Your task to perform on an android device: turn pop-ups on in chrome Image 0: 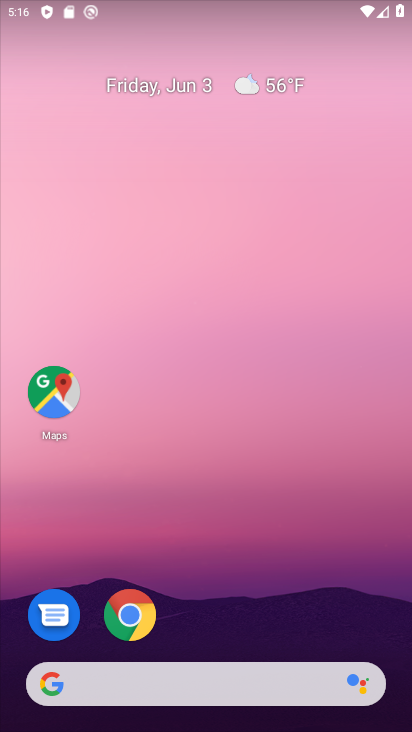
Step 0: click (129, 618)
Your task to perform on an android device: turn pop-ups on in chrome Image 1: 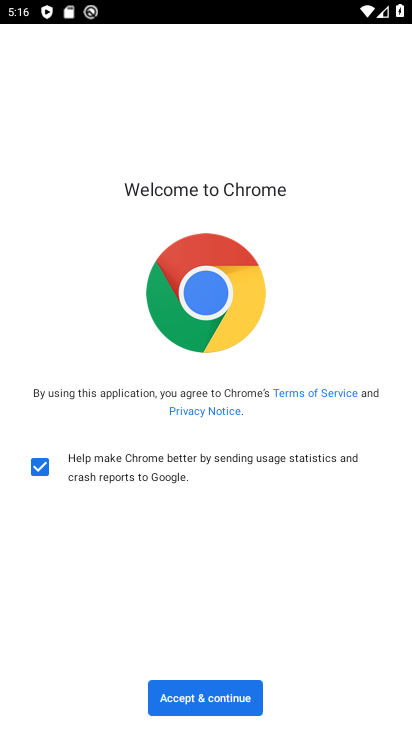
Step 1: click (196, 697)
Your task to perform on an android device: turn pop-ups on in chrome Image 2: 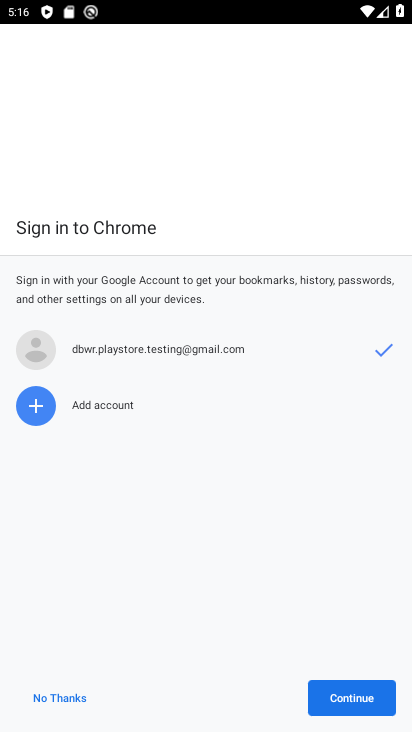
Step 2: click (350, 698)
Your task to perform on an android device: turn pop-ups on in chrome Image 3: 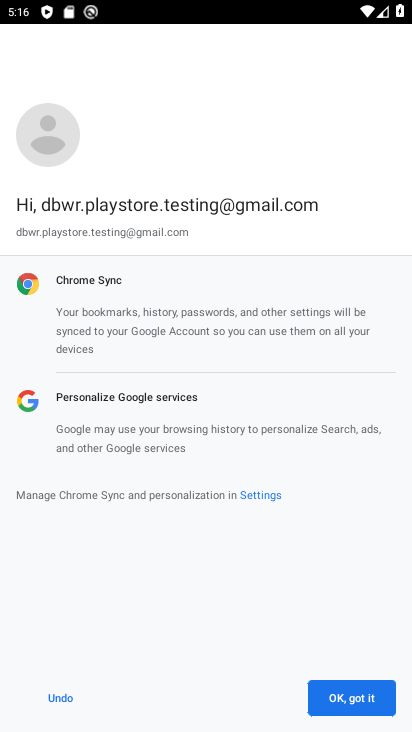
Step 3: click (350, 698)
Your task to perform on an android device: turn pop-ups on in chrome Image 4: 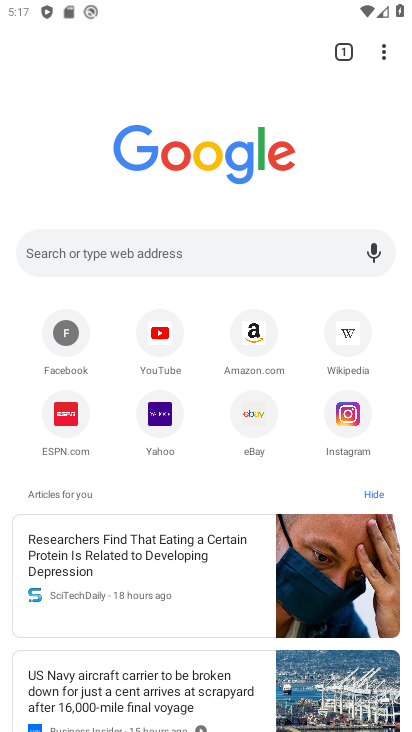
Step 4: click (385, 52)
Your task to perform on an android device: turn pop-ups on in chrome Image 5: 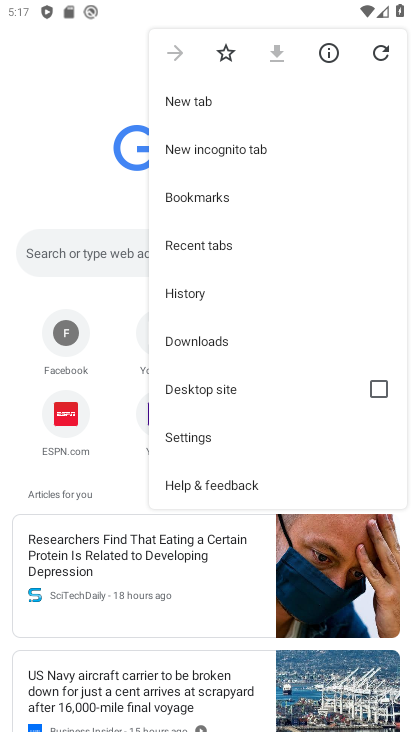
Step 5: click (208, 435)
Your task to perform on an android device: turn pop-ups on in chrome Image 6: 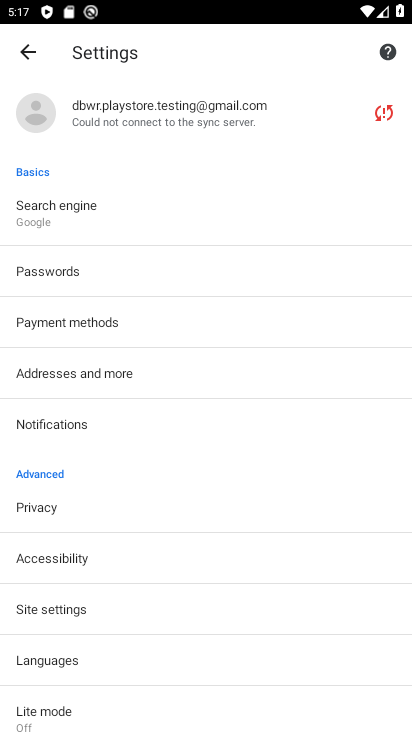
Step 6: click (59, 613)
Your task to perform on an android device: turn pop-ups on in chrome Image 7: 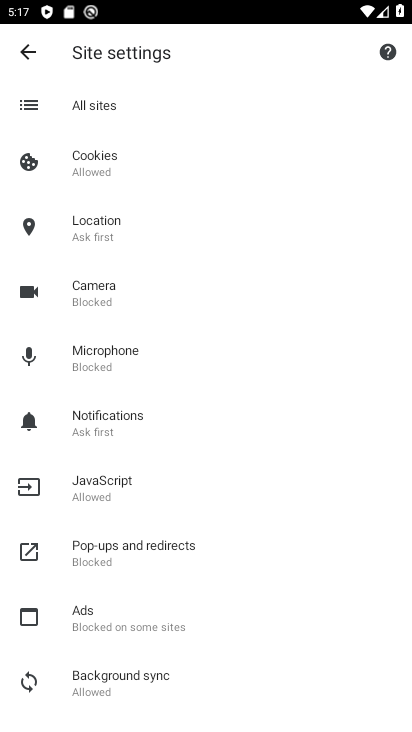
Step 7: click (132, 549)
Your task to perform on an android device: turn pop-ups on in chrome Image 8: 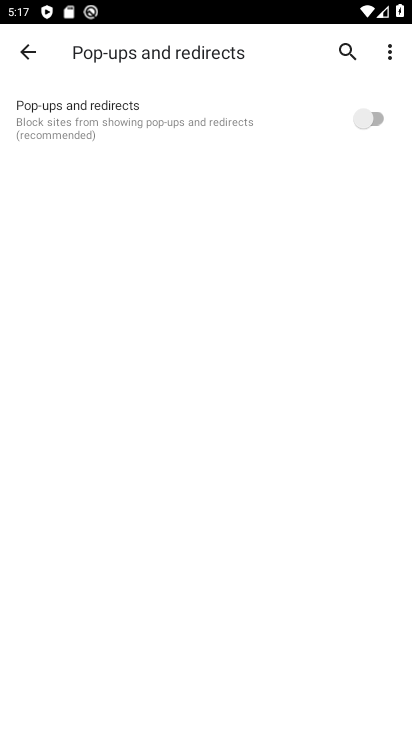
Step 8: click (366, 121)
Your task to perform on an android device: turn pop-ups on in chrome Image 9: 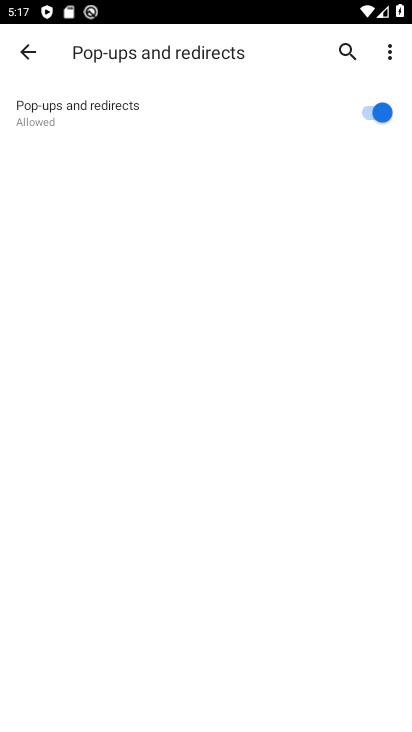
Step 9: task complete